Your task to perform on an android device: Go to network settings Image 0: 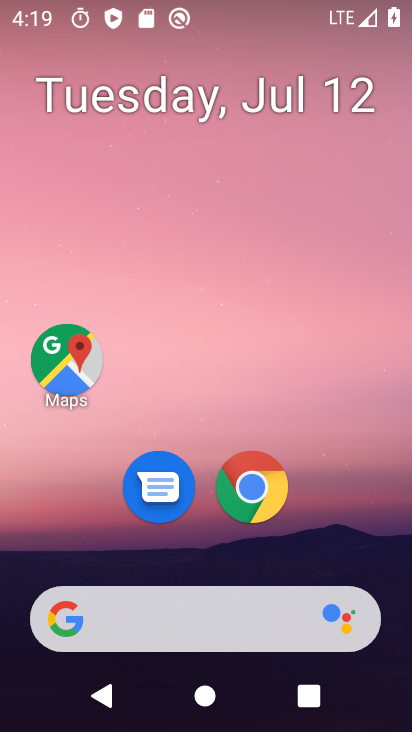
Step 0: drag from (246, 648) to (348, 117)
Your task to perform on an android device: Go to network settings Image 1: 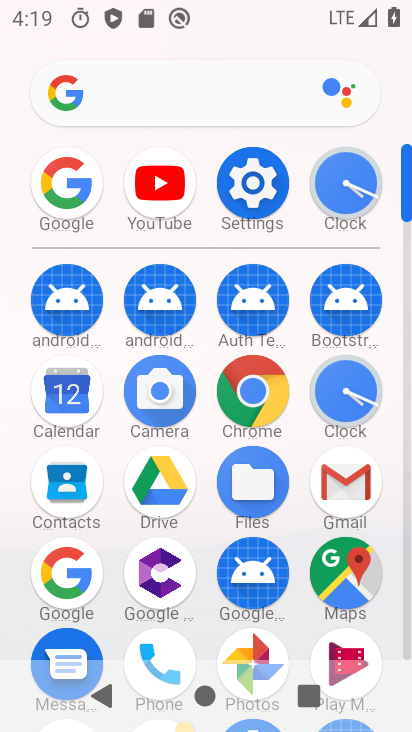
Step 1: click (262, 185)
Your task to perform on an android device: Go to network settings Image 2: 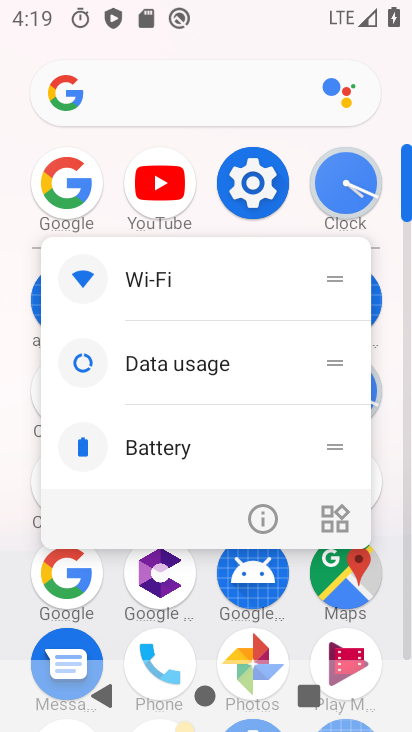
Step 2: click (251, 179)
Your task to perform on an android device: Go to network settings Image 3: 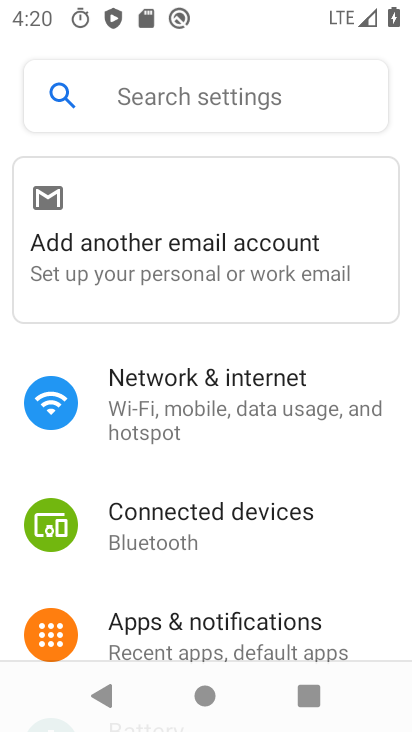
Step 3: click (190, 416)
Your task to perform on an android device: Go to network settings Image 4: 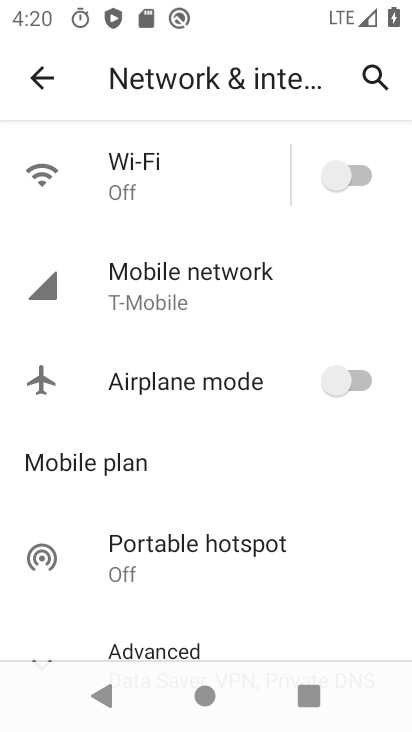
Step 4: click (166, 302)
Your task to perform on an android device: Go to network settings Image 5: 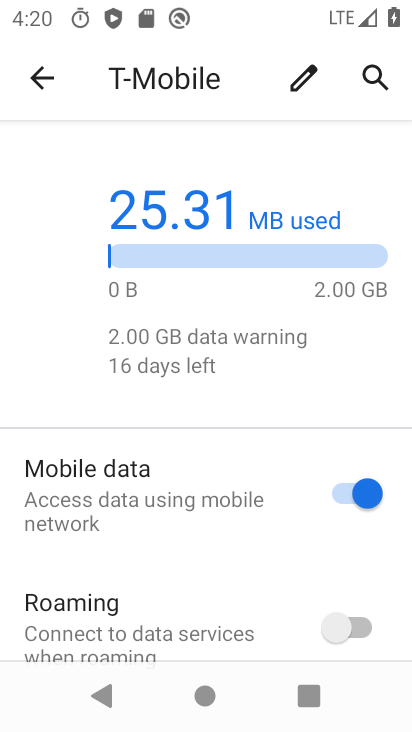
Step 5: task complete